Your task to perform on an android device: What's on my calendar today? Image 0: 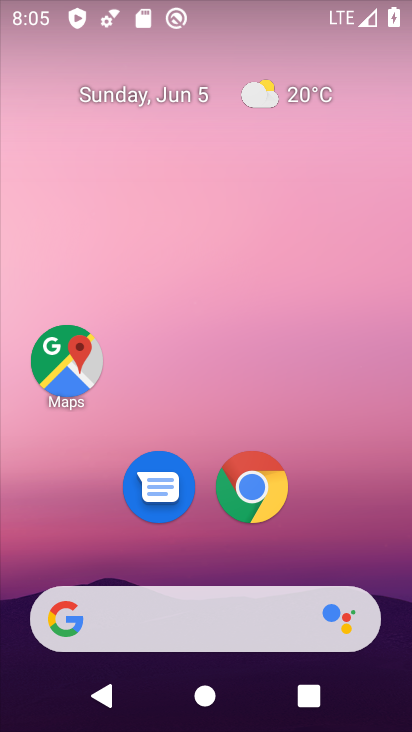
Step 0: drag from (195, 566) to (190, 134)
Your task to perform on an android device: What's on my calendar today? Image 1: 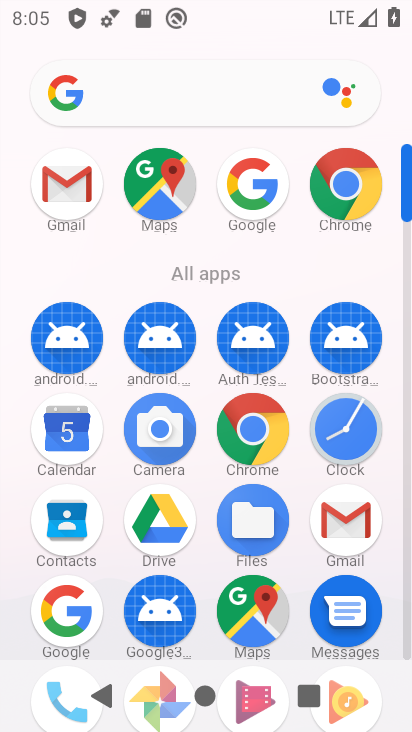
Step 1: drag from (111, 465) to (136, 331)
Your task to perform on an android device: What's on my calendar today? Image 2: 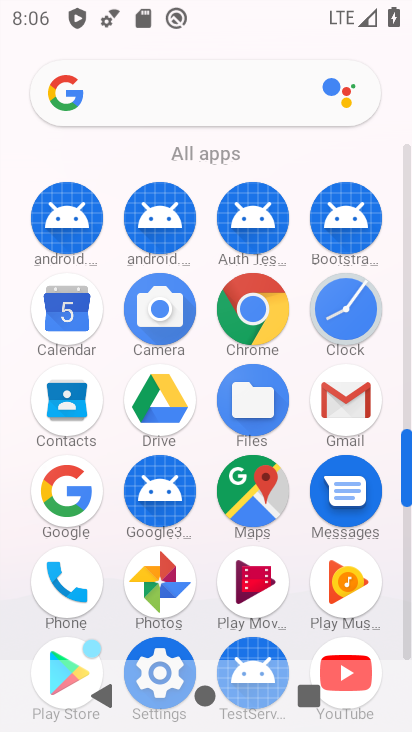
Step 2: click (75, 318)
Your task to perform on an android device: What's on my calendar today? Image 3: 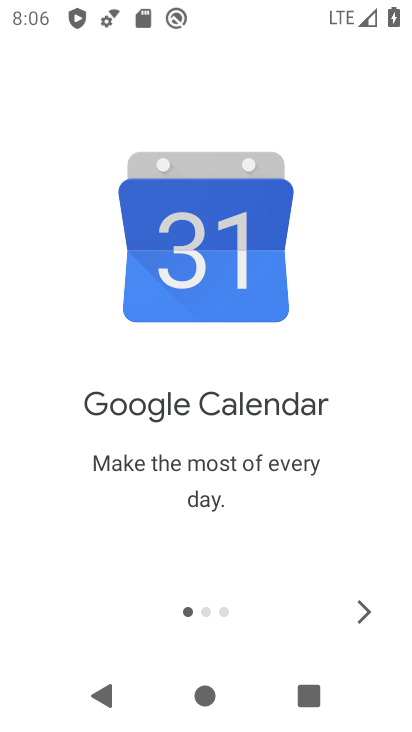
Step 3: click (357, 607)
Your task to perform on an android device: What's on my calendar today? Image 4: 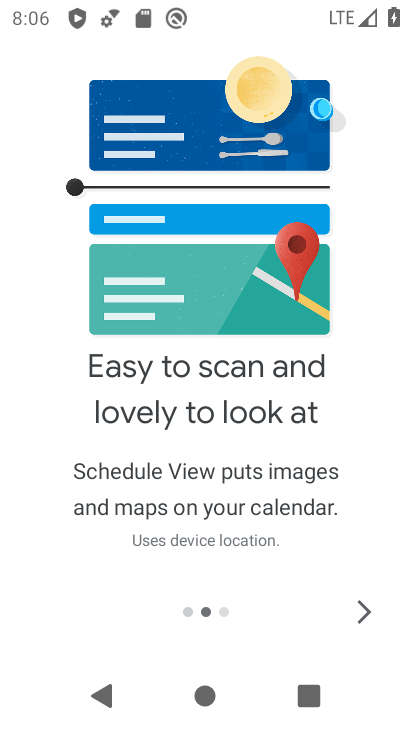
Step 4: click (357, 607)
Your task to perform on an android device: What's on my calendar today? Image 5: 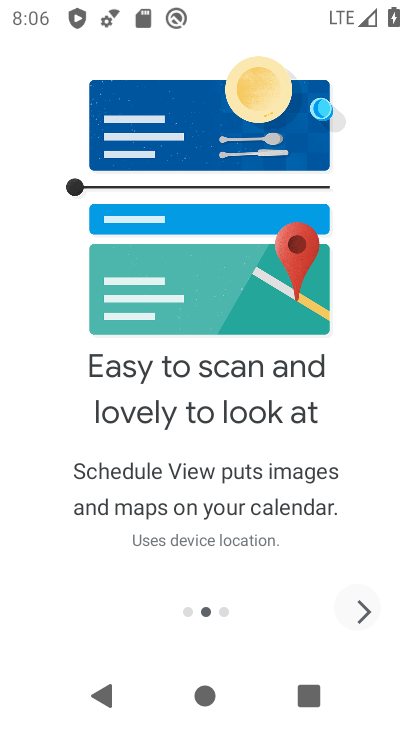
Step 5: click (357, 607)
Your task to perform on an android device: What's on my calendar today? Image 6: 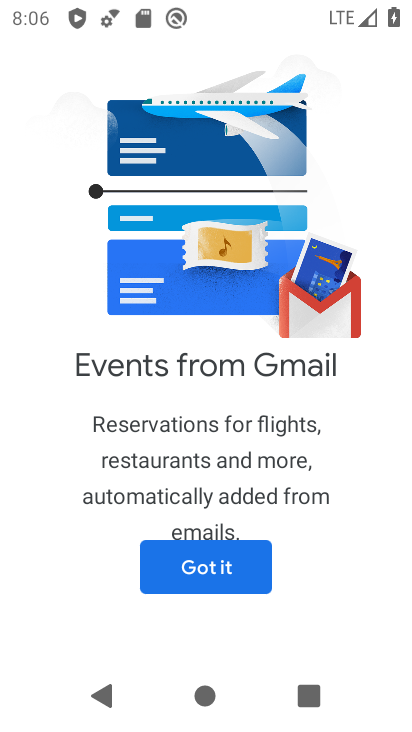
Step 6: click (196, 572)
Your task to perform on an android device: What's on my calendar today? Image 7: 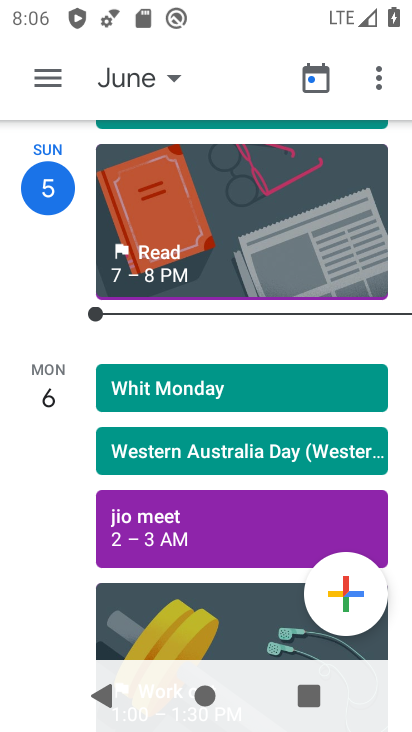
Step 7: click (161, 91)
Your task to perform on an android device: What's on my calendar today? Image 8: 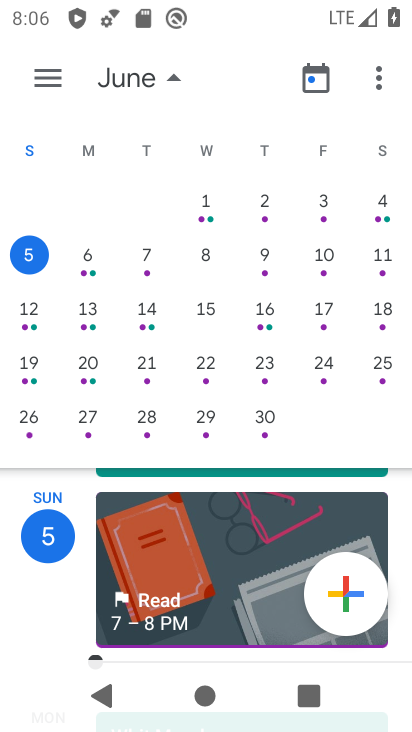
Step 8: click (34, 254)
Your task to perform on an android device: What's on my calendar today? Image 9: 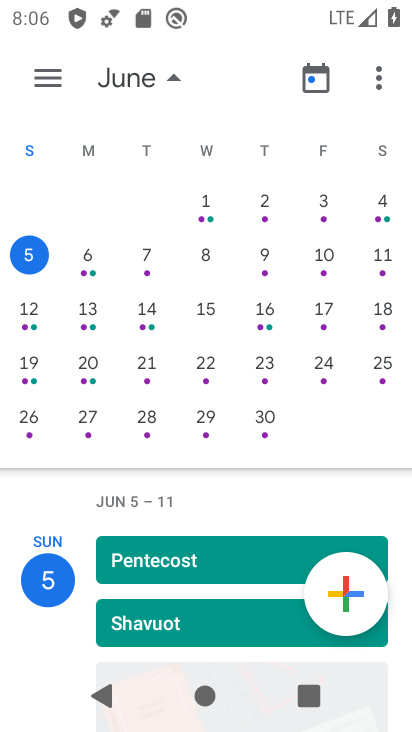
Step 9: task complete